Your task to perform on an android device: delete a single message in the gmail app Image 0: 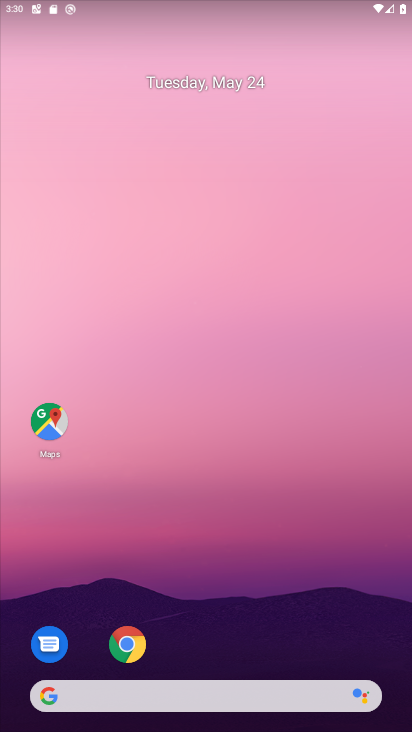
Step 0: drag from (306, 642) to (239, 141)
Your task to perform on an android device: delete a single message in the gmail app Image 1: 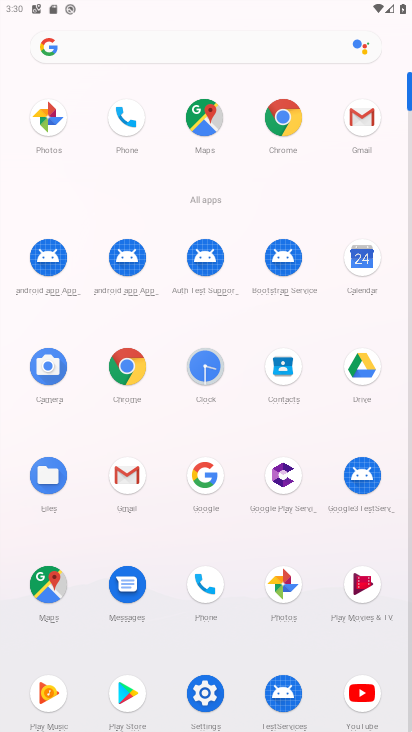
Step 1: click (123, 485)
Your task to perform on an android device: delete a single message in the gmail app Image 2: 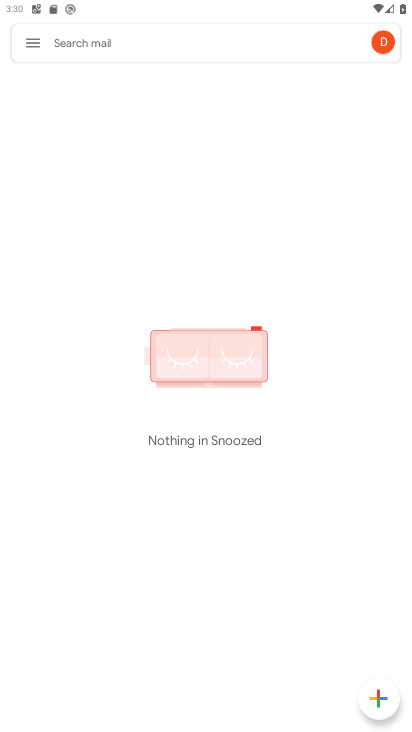
Step 2: click (37, 40)
Your task to perform on an android device: delete a single message in the gmail app Image 3: 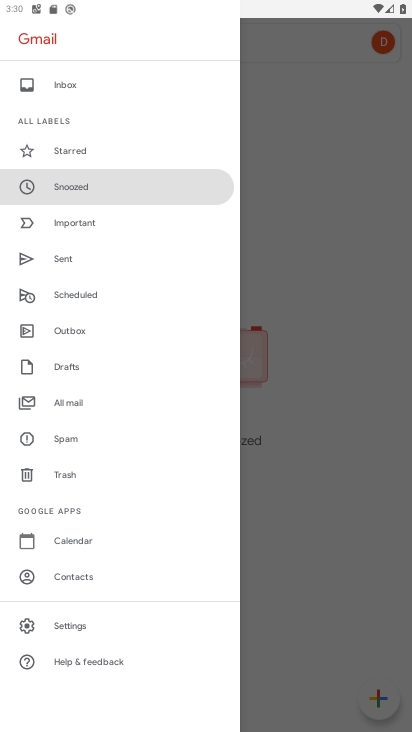
Step 3: click (63, 408)
Your task to perform on an android device: delete a single message in the gmail app Image 4: 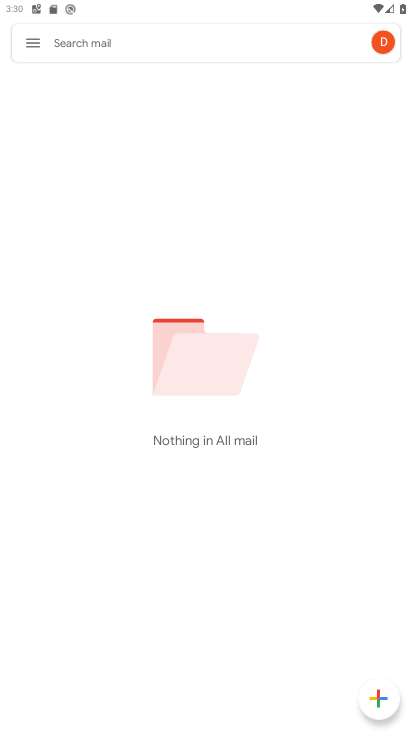
Step 4: task complete